Your task to perform on an android device: delete a single message in the gmail app Image 0: 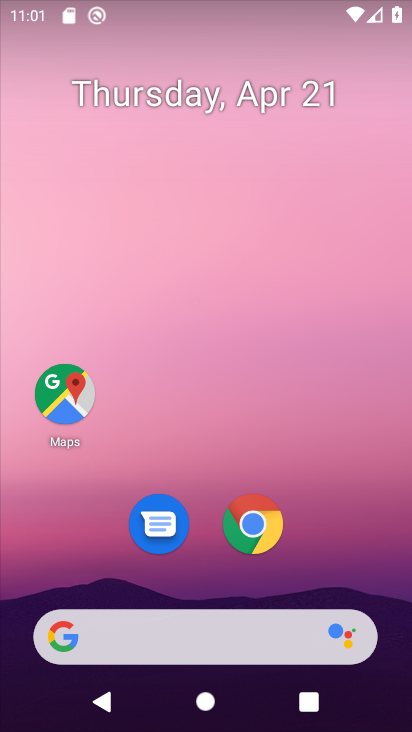
Step 0: drag from (350, 525) to (332, 94)
Your task to perform on an android device: delete a single message in the gmail app Image 1: 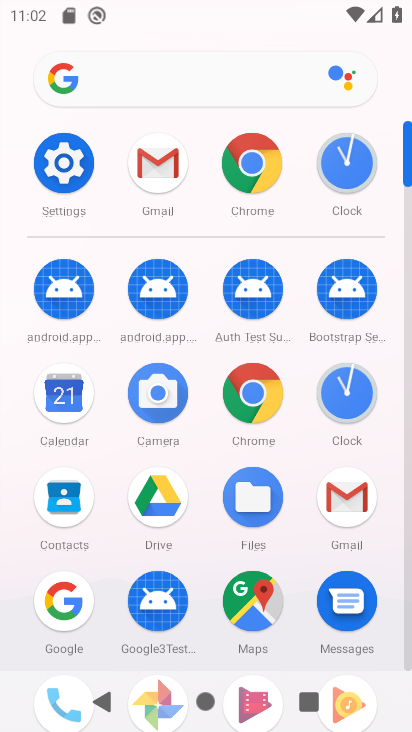
Step 1: click (160, 167)
Your task to perform on an android device: delete a single message in the gmail app Image 2: 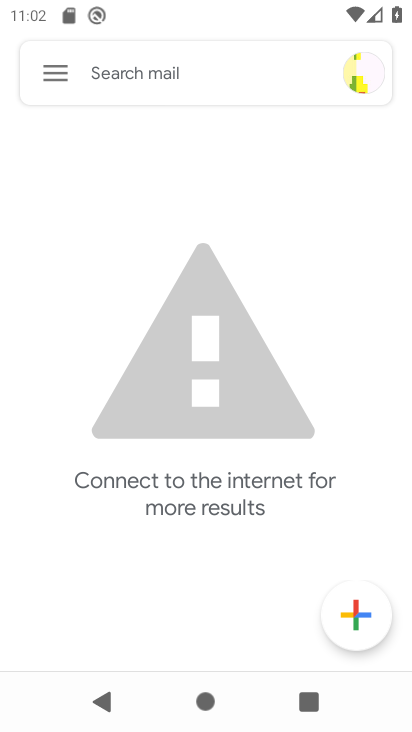
Step 2: click (59, 74)
Your task to perform on an android device: delete a single message in the gmail app Image 3: 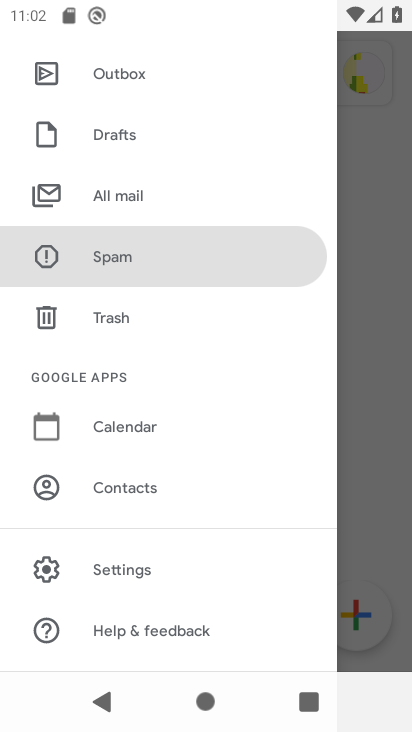
Step 3: click (208, 189)
Your task to perform on an android device: delete a single message in the gmail app Image 4: 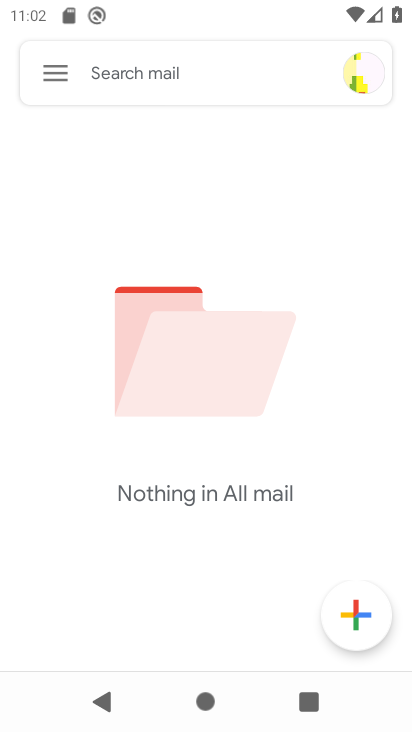
Step 4: task complete